Your task to perform on an android device: Search for the new nike shoes on Target Image 0: 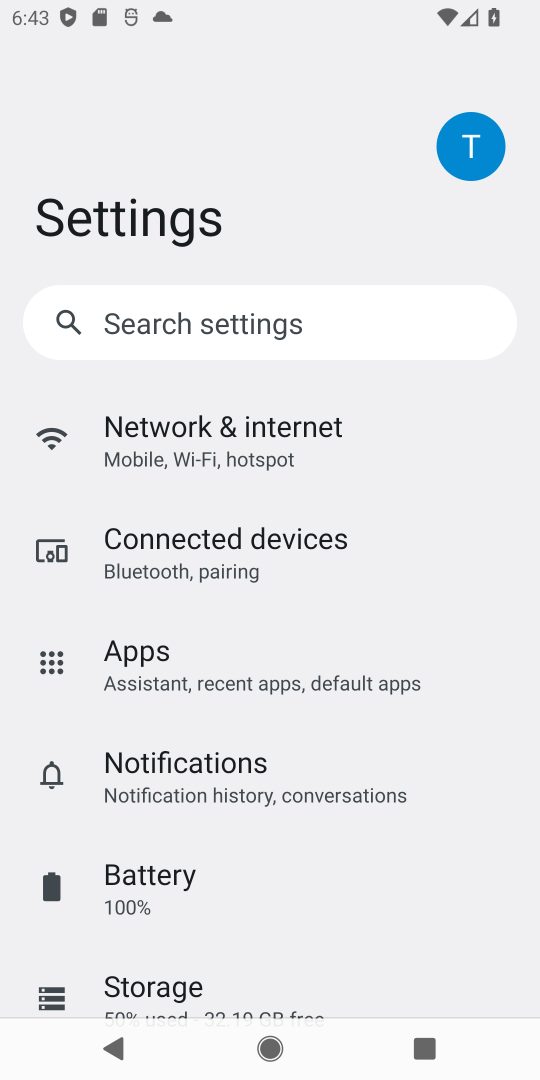
Step 0: press home button
Your task to perform on an android device: Search for the new nike shoes on Target Image 1: 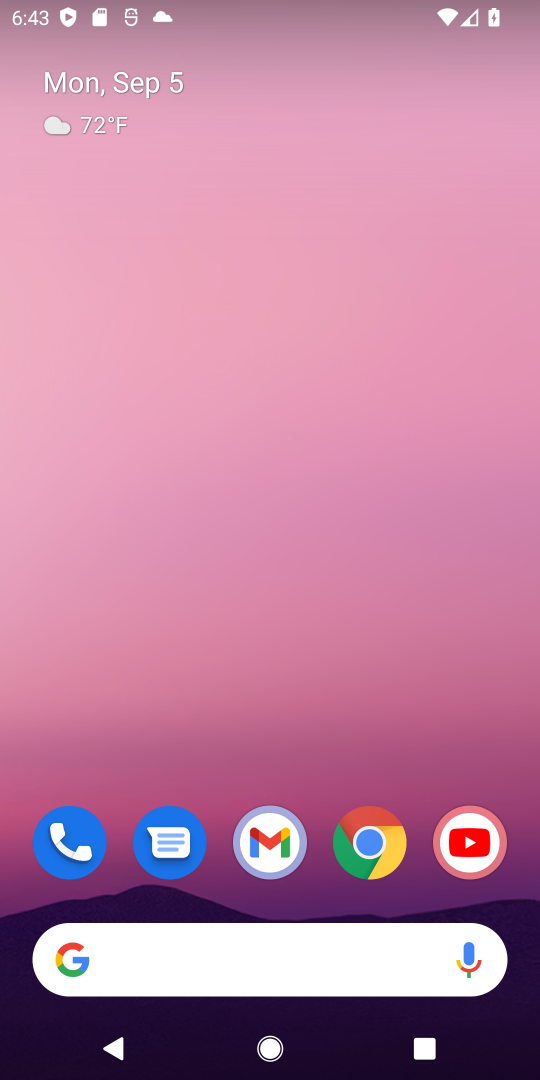
Step 1: click (376, 836)
Your task to perform on an android device: Search for the new nike shoes on Target Image 2: 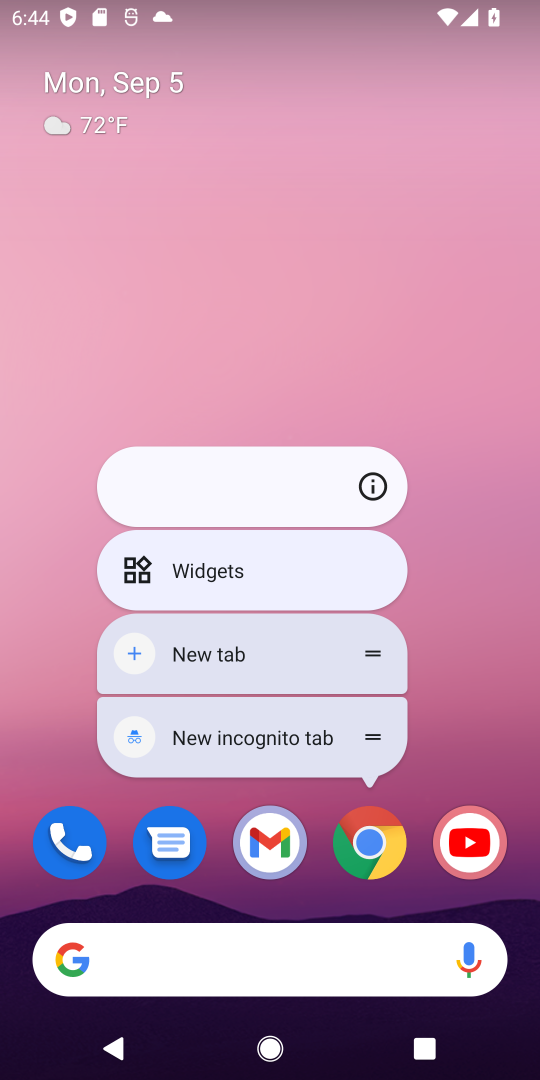
Step 2: click (369, 842)
Your task to perform on an android device: Search for the new nike shoes on Target Image 3: 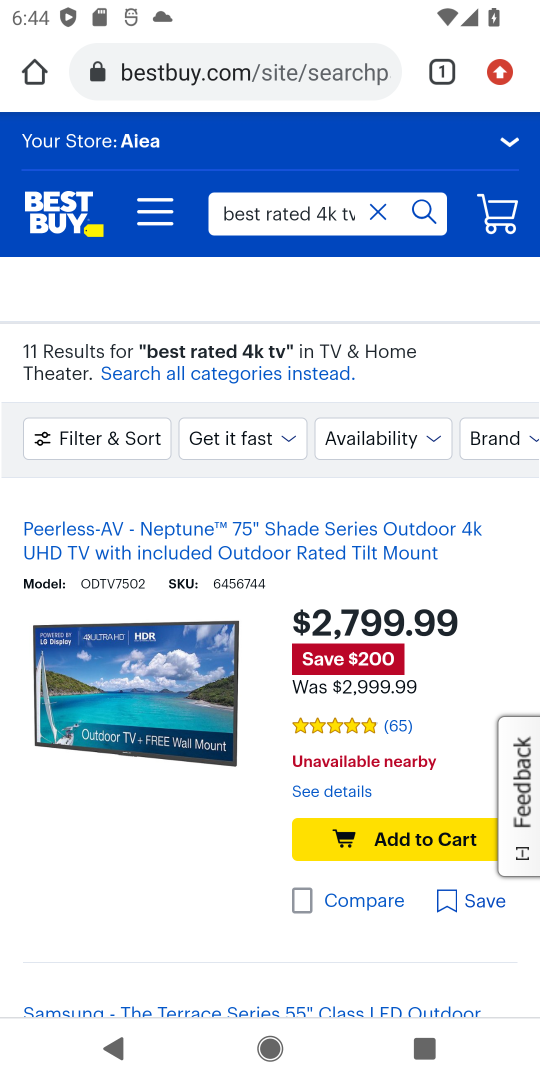
Step 3: click (371, 213)
Your task to perform on an android device: Search for the new nike shoes on Target Image 4: 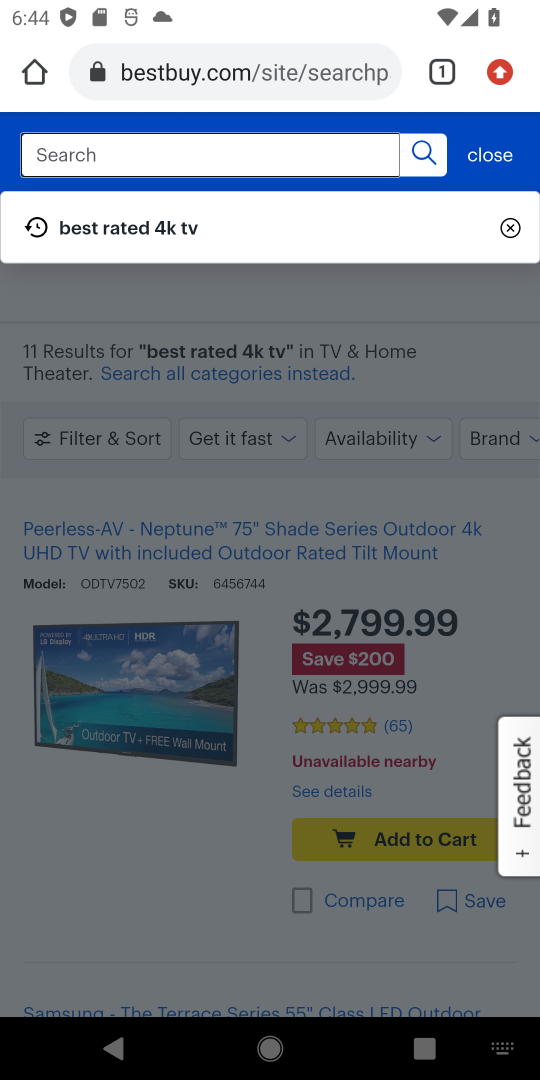
Step 4: click (296, 149)
Your task to perform on an android device: Search for the new nike shoes on Target Image 5: 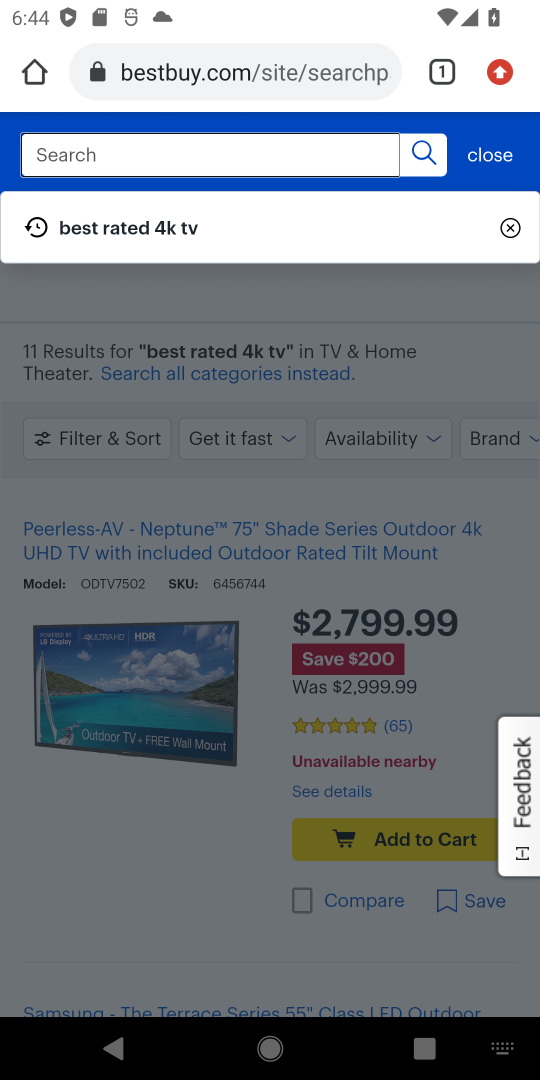
Step 5: click (360, 74)
Your task to perform on an android device: Search for the new nike shoes on Target Image 6: 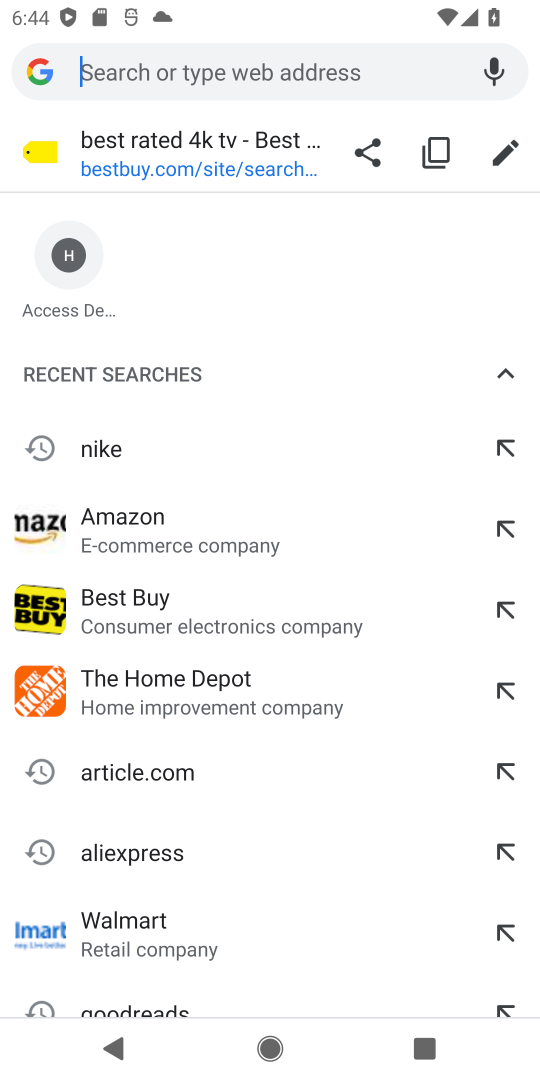
Step 6: type "Target"
Your task to perform on an android device: Search for the new nike shoes on Target Image 7: 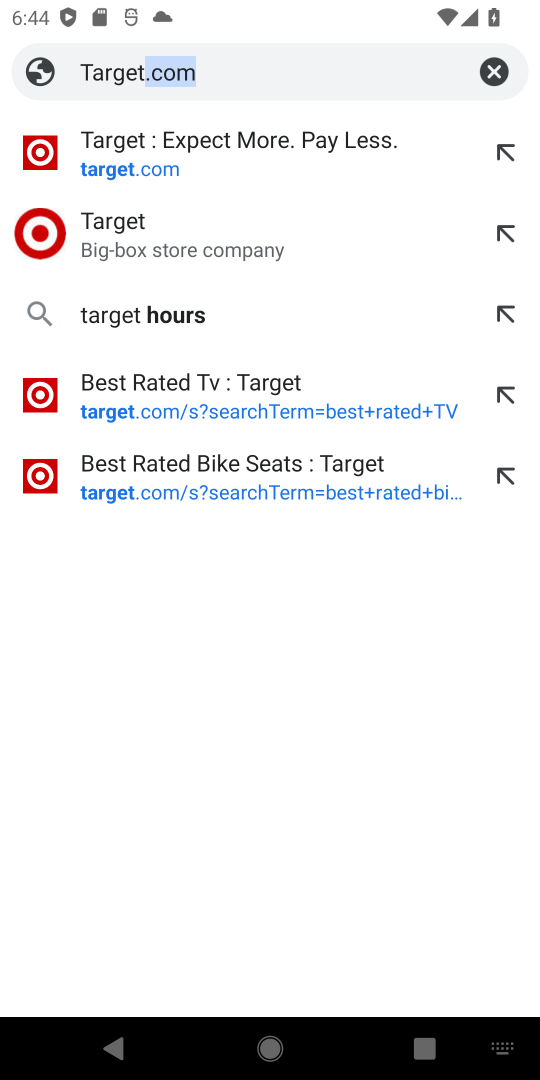
Step 7: click (124, 210)
Your task to perform on an android device: Search for the new nike shoes on Target Image 8: 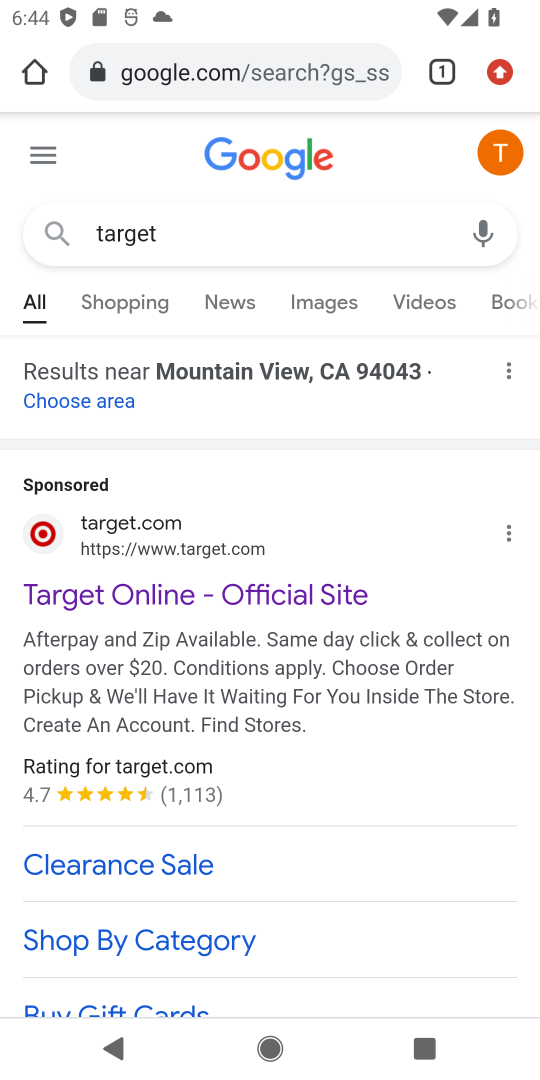
Step 8: drag from (360, 554) to (415, 276)
Your task to perform on an android device: Search for the new nike shoes on Target Image 9: 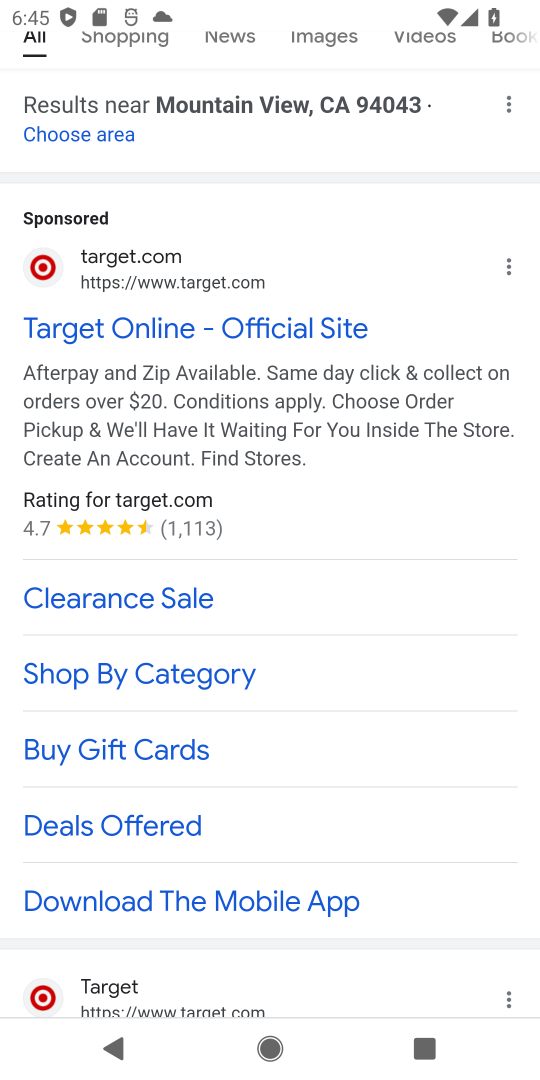
Step 9: drag from (308, 847) to (313, 605)
Your task to perform on an android device: Search for the new nike shoes on Target Image 10: 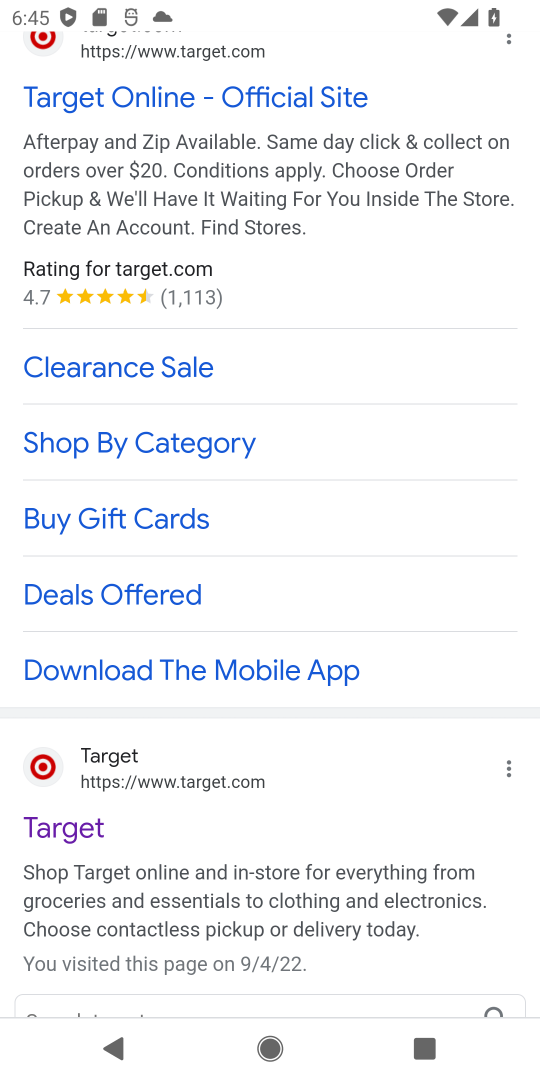
Step 10: click (92, 847)
Your task to perform on an android device: Search for the new nike shoes on Target Image 11: 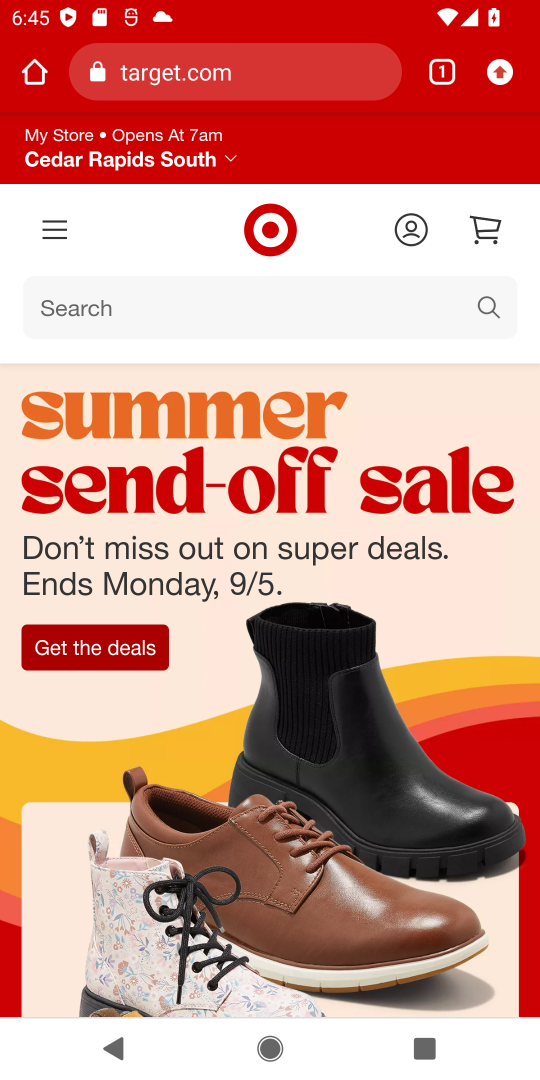
Step 11: click (95, 284)
Your task to perform on an android device: Search for the new nike shoes on Target Image 12: 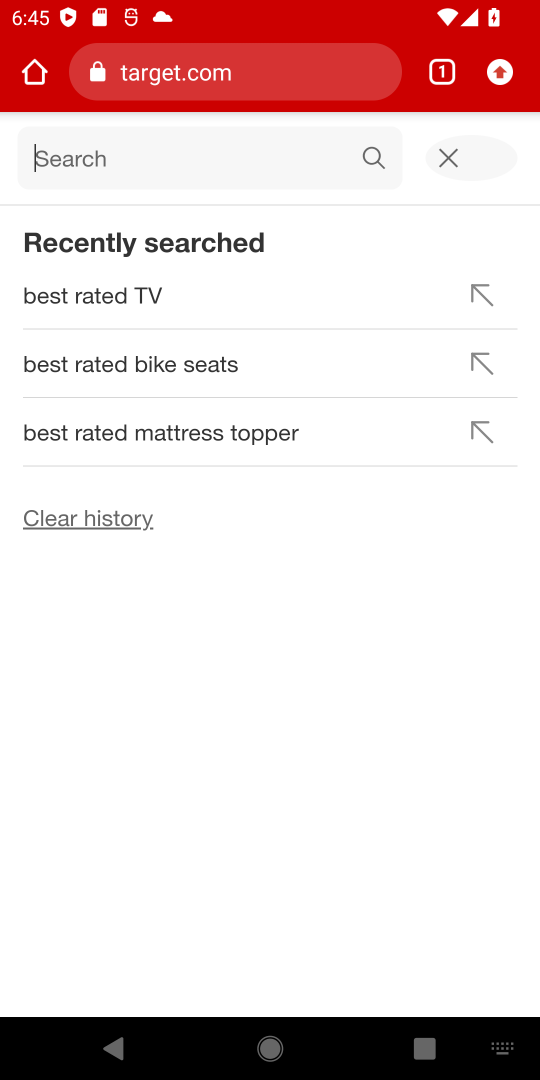
Step 12: type "new nike shoes"
Your task to perform on an android device: Search for the new nike shoes on Target Image 13: 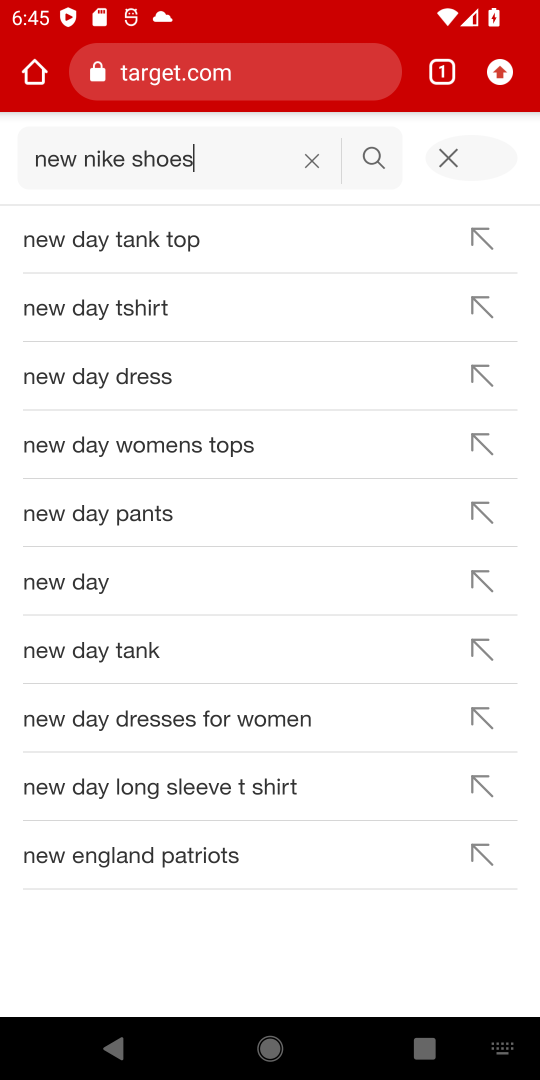
Step 13: click (367, 156)
Your task to perform on an android device: Search for the new nike shoes on Target Image 14: 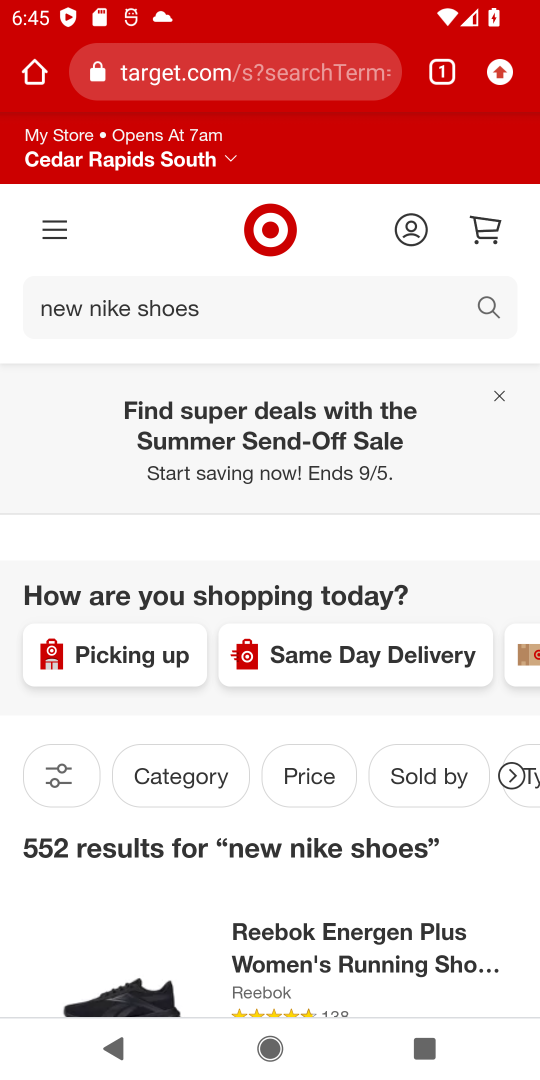
Step 14: task complete